Your task to perform on an android device: check battery use Image 0: 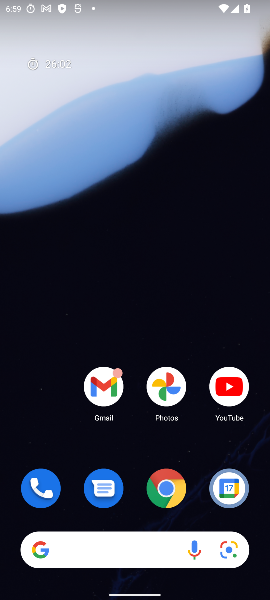
Step 0: drag from (44, 519) to (12, 22)
Your task to perform on an android device: check battery use Image 1: 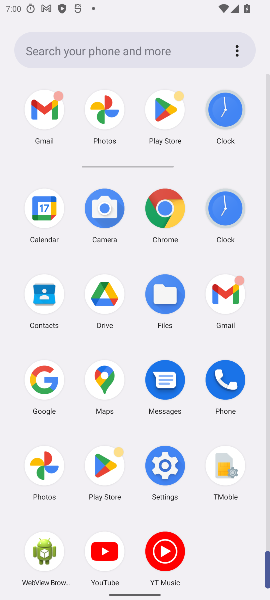
Step 1: press home button
Your task to perform on an android device: check battery use Image 2: 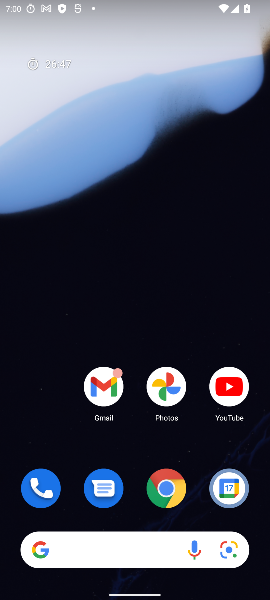
Step 2: drag from (30, 403) to (7, 126)
Your task to perform on an android device: check battery use Image 3: 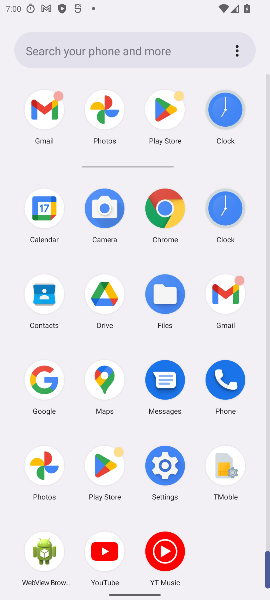
Step 3: click (153, 470)
Your task to perform on an android device: check battery use Image 4: 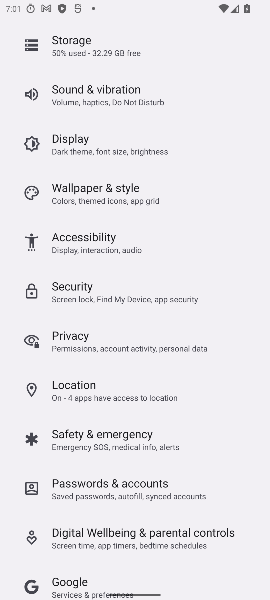
Step 4: drag from (94, 230) to (147, 468)
Your task to perform on an android device: check battery use Image 5: 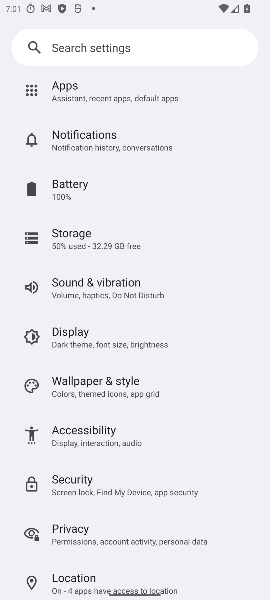
Step 5: click (59, 178)
Your task to perform on an android device: check battery use Image 6: 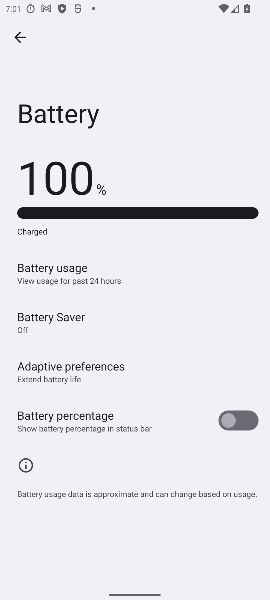
Step 6: task complete